Your task to perform on an android device: turn on translation in the chrome app Image 0: 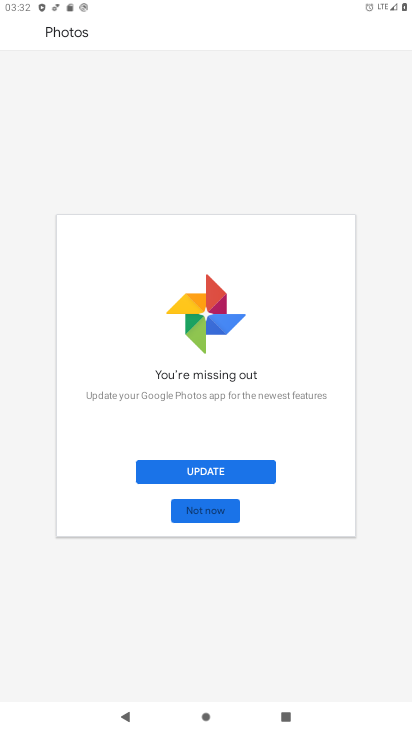
Step 0: press home button
Your task to perform on an android device: turn on translation in the chrome app Image 1: 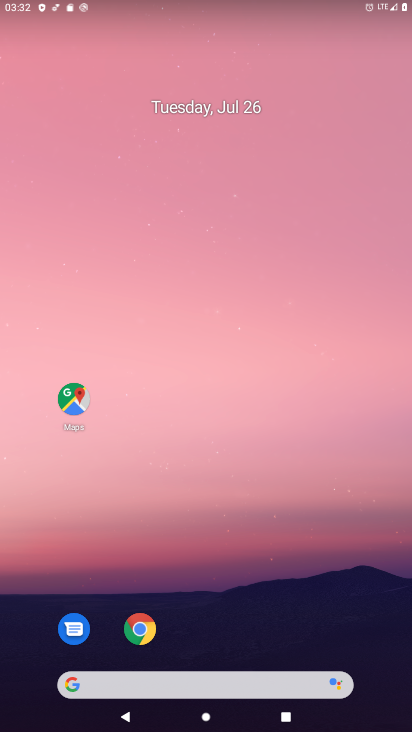
Step 1: click (138, 621)
Your task to perform on an android device: turn on translation in the chrome app Image 2: 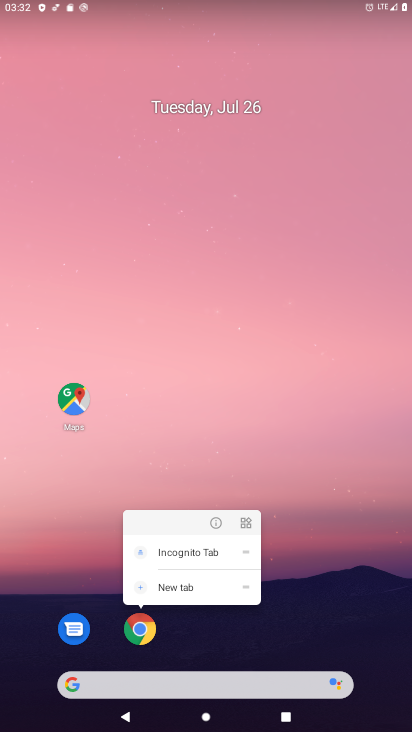
Step 2: click (136, 626)
Your task to perform on an android device: turn on translation in the chrome app Image 3: 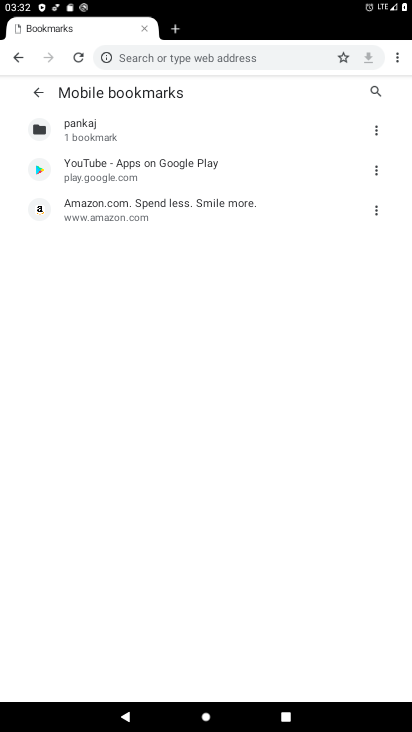
Step 3: drag from (400, 55) to (297, 258)
Your task to perform on an android device: turn on translation in the chrome app Image 4: 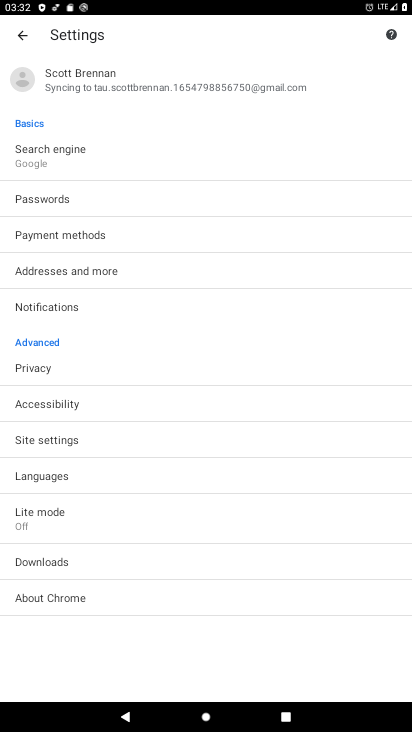
Step 4: click (37, 470)
Your task to perform on an android device: turn on translation in the chrome app Image 5: 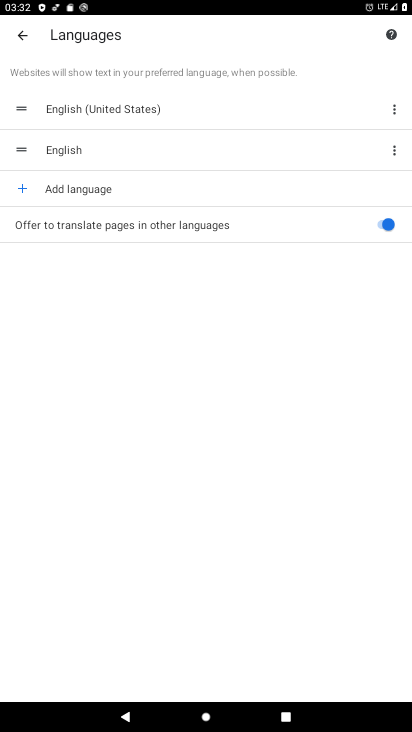
Step 5: task complete